Your task to perform on an android device: Open settings on Google Maps Image 0: 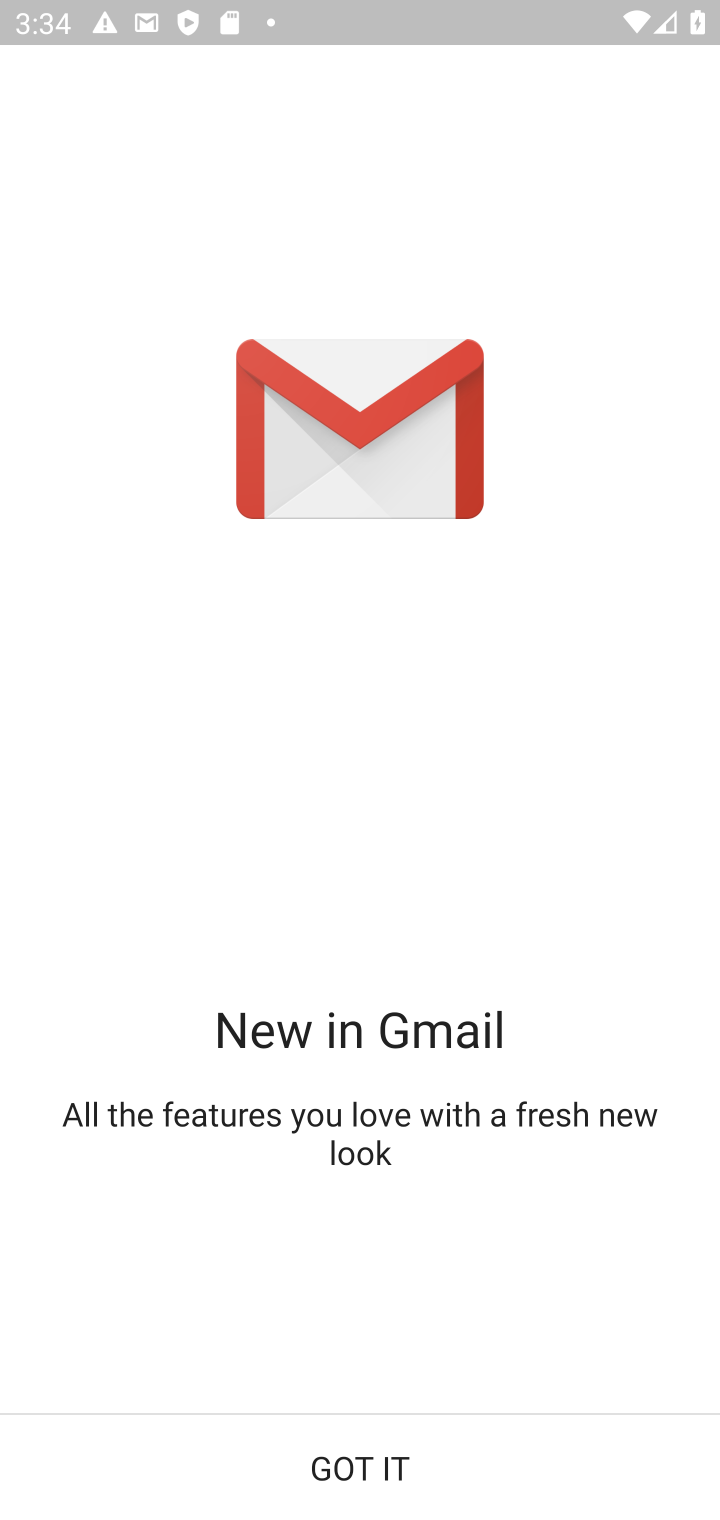
Step 0: press back button
Your task to perform on an android device: Open settings on Google Maps Image 1: 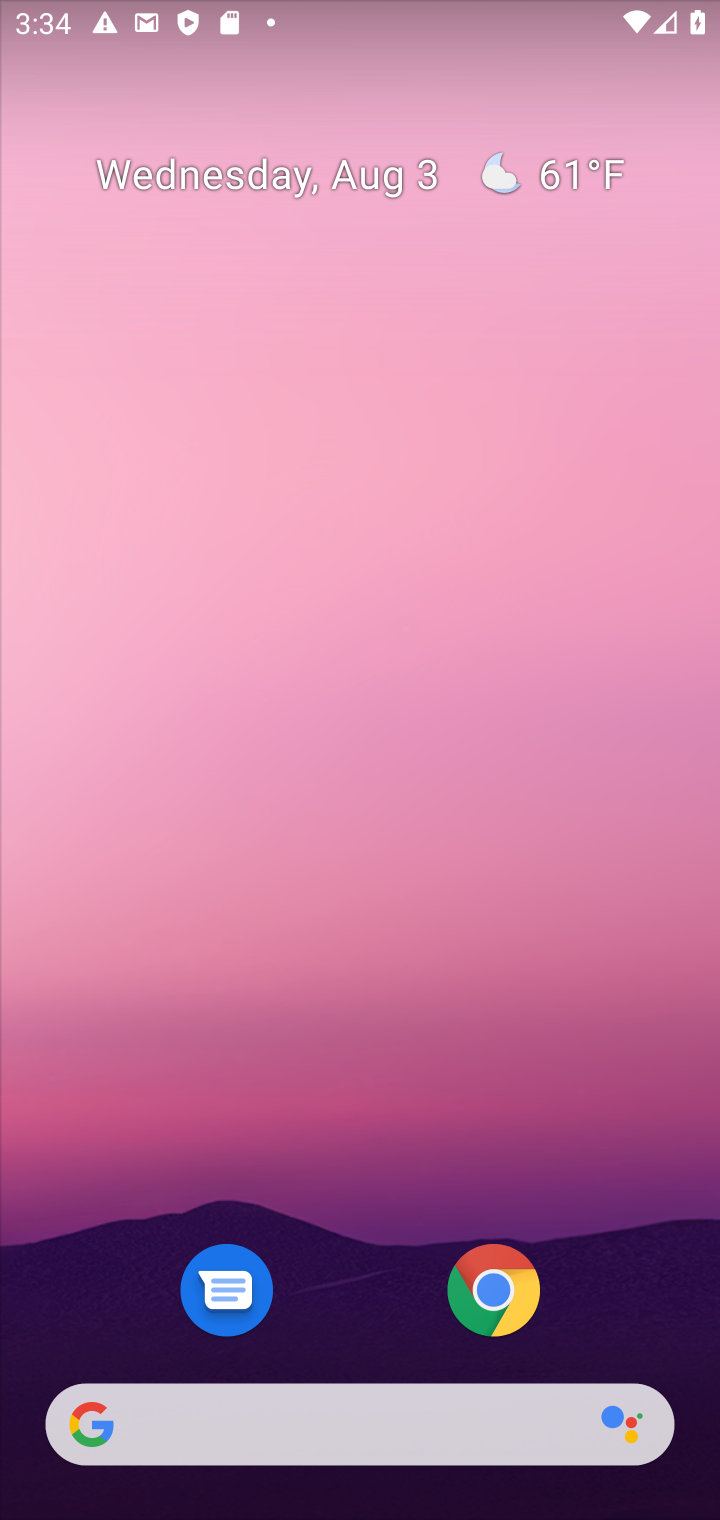
Step 1: drag from (436, 540) to (460, 132)
Your task to perform on an android device: Open settings on Google Maps Image 2: 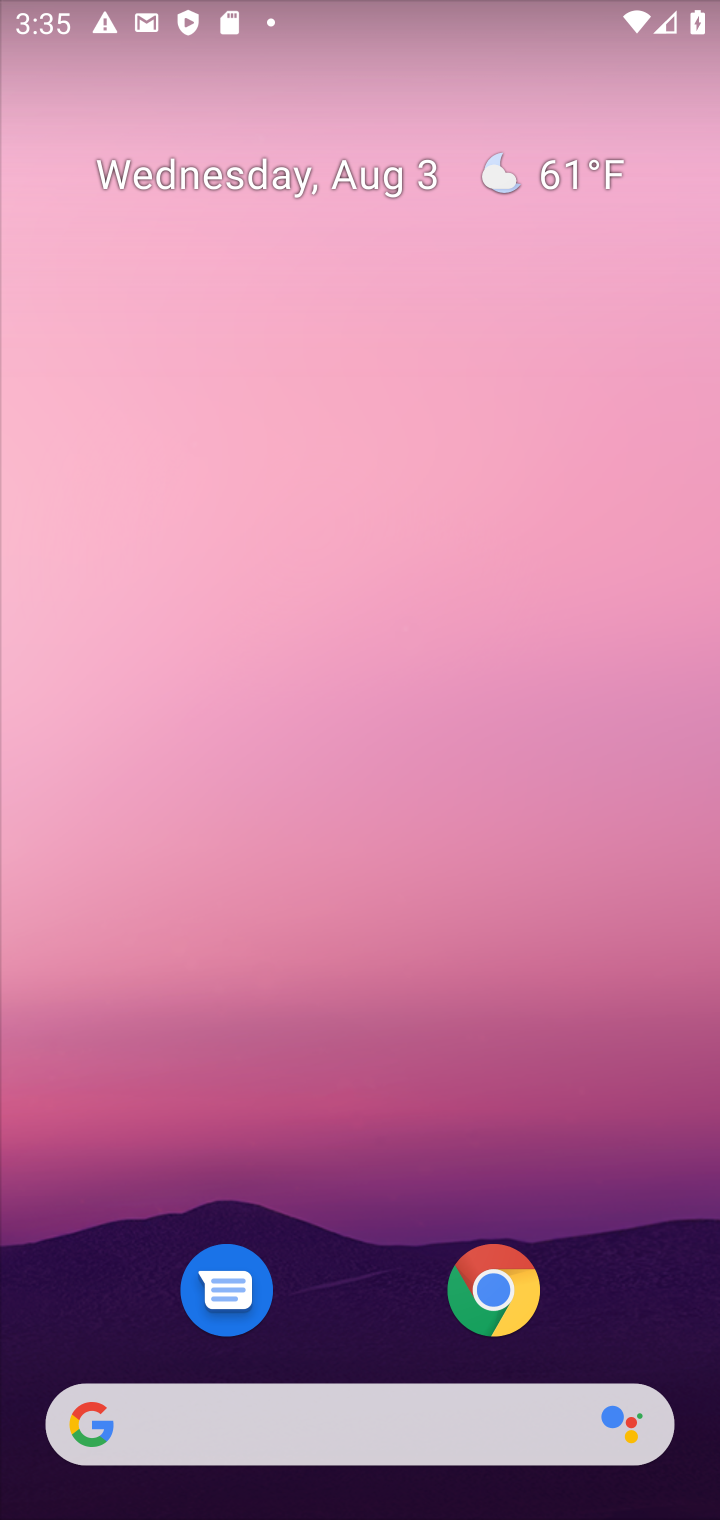
Step 2: drag from (329, 835) to (323, 129)
Your task to perform on an android device: Open settings on Google Maps Image 3: 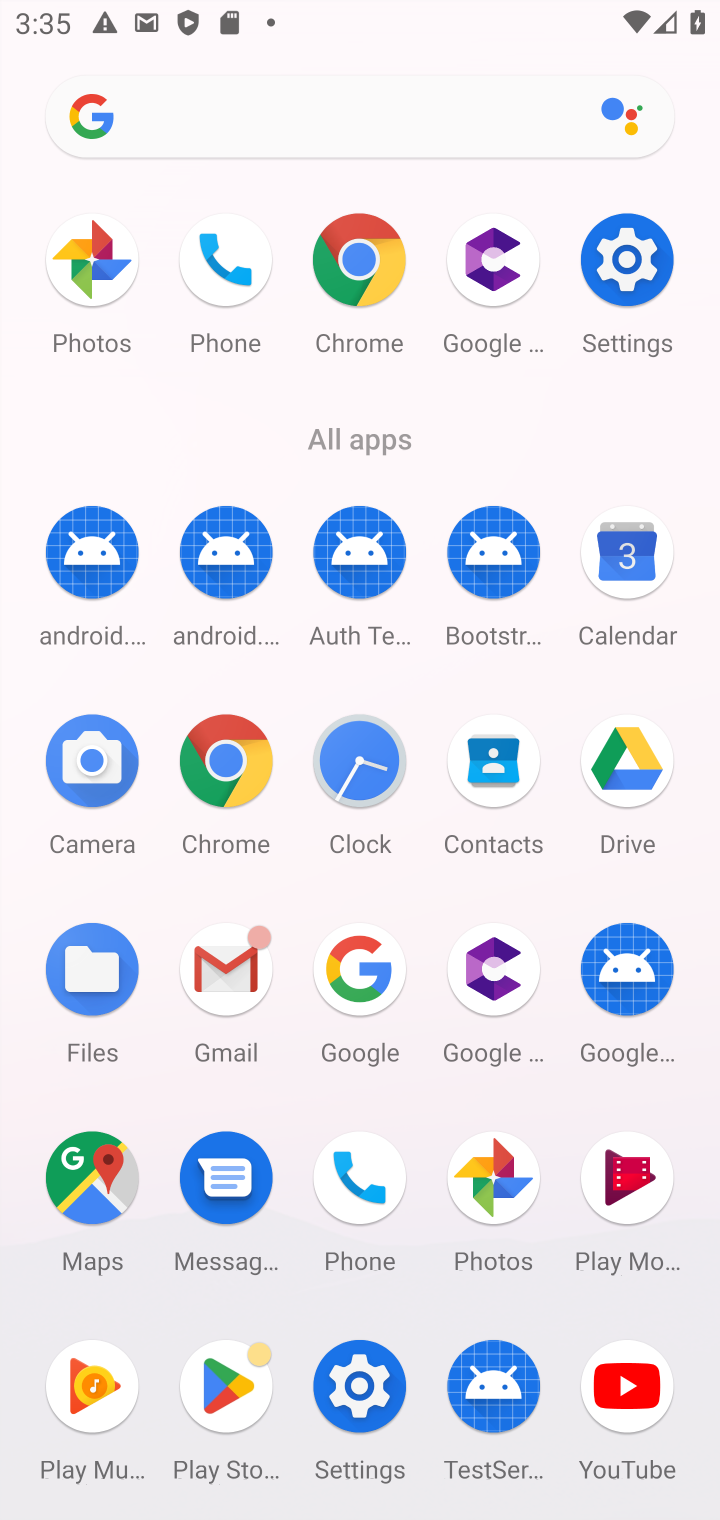
Step 3: click (89, 1176)
Your task to perform on an android device: Open settings on Google Maps Image 4: 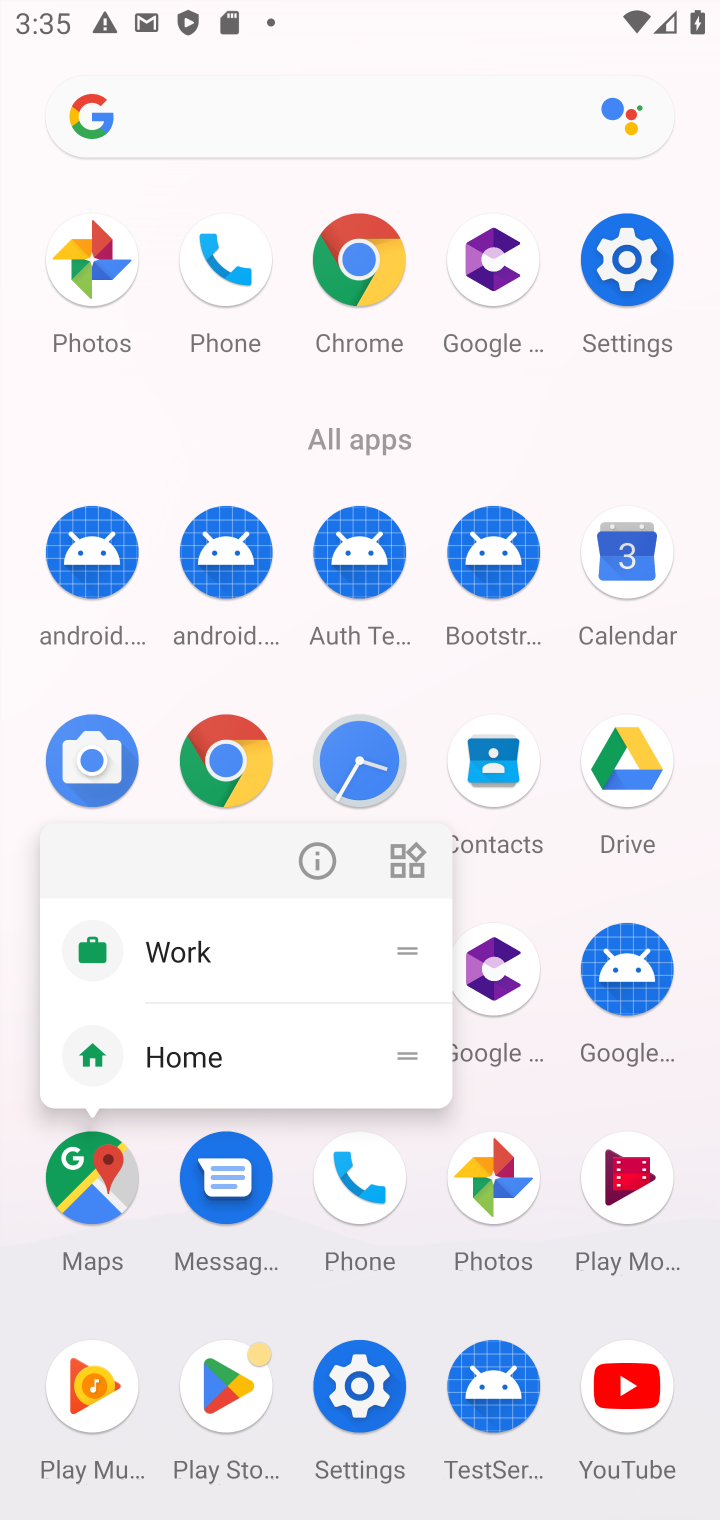
Step 4: click (104, 1184)
Your task to perform on an android device: Open settings on Google Maps Image 5: 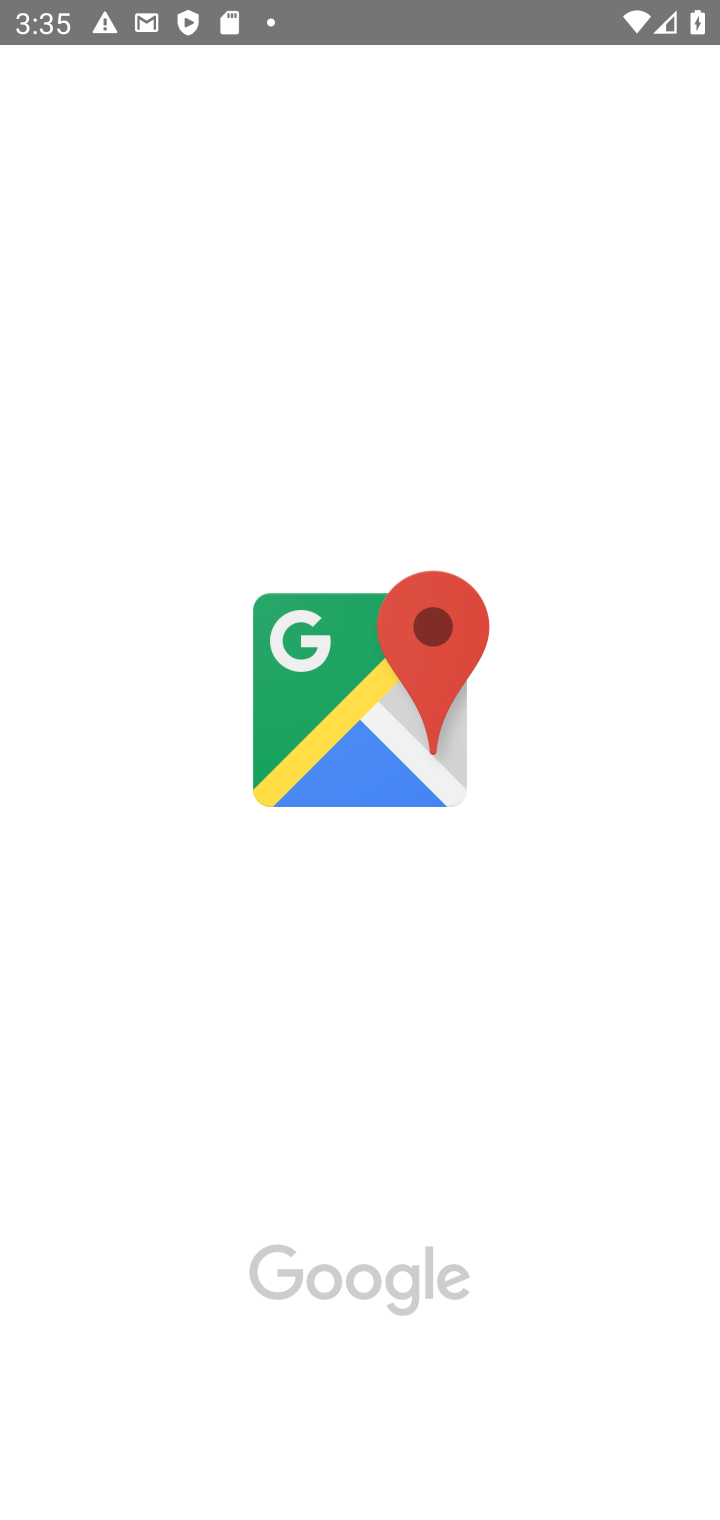
Step 5: task complete